Your task to perform on an android device: turn pop-ups on in chrome Image 0: 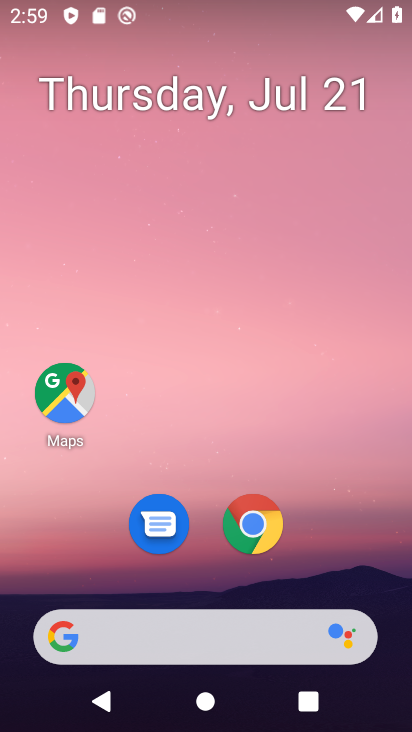
Step 0: press home button
Your task to perform on an android device: turn pop-ups on in chrome Image 1: 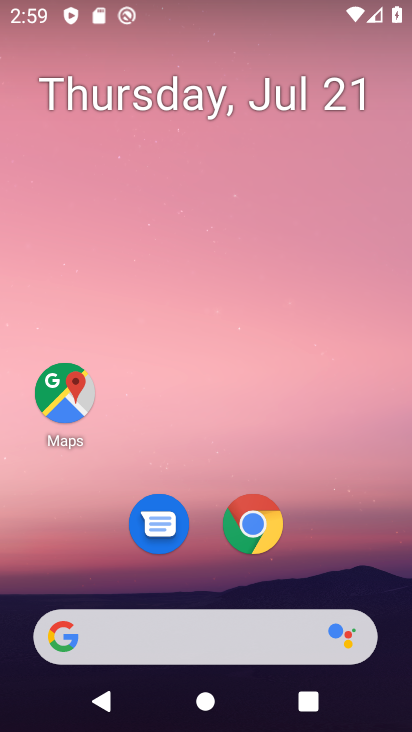
Step 1: click (251, 533)
Your task to perform on an android device: turn pop-ups on in chrome Image 2: 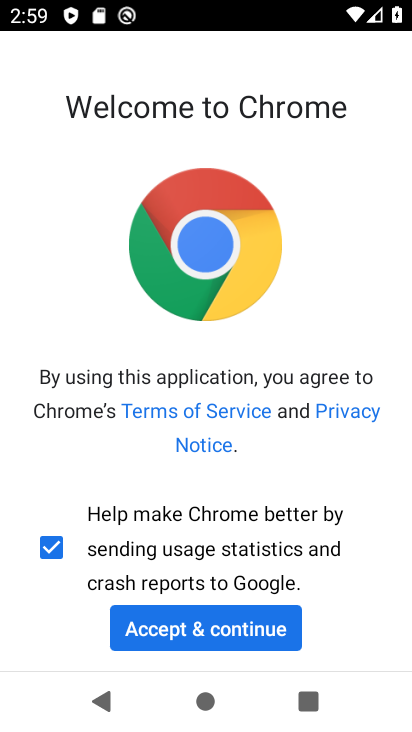
Step 2: click (217, 623)
Your task to perform on an android device: turn pop-ups on in chrome Image 3: 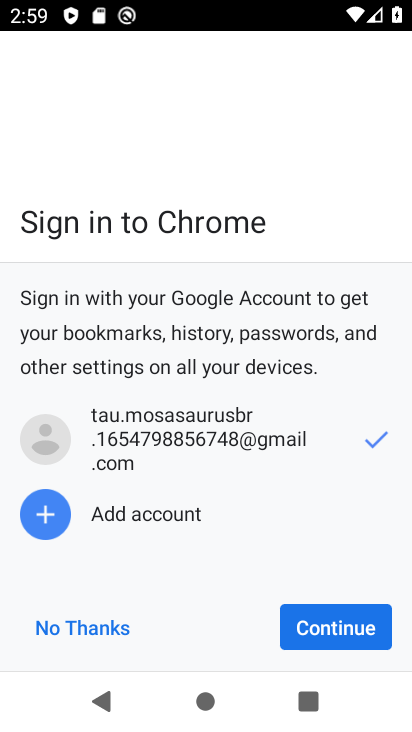
Step 3: click (319, 631)
Your task to perform on an android device: turn pop-ups on in chrome Image 4: 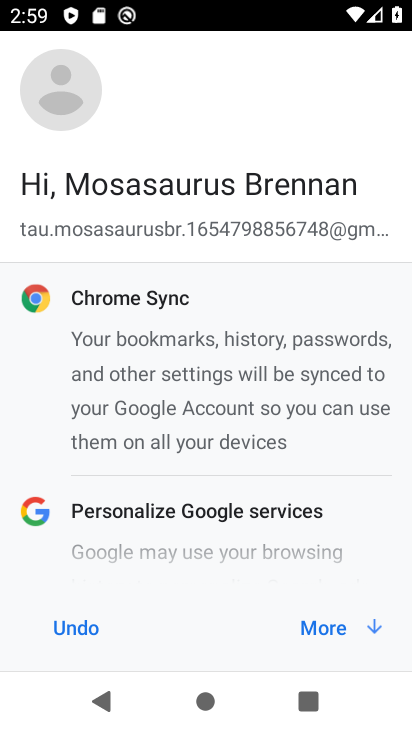
Step 4: click (320, 632)
Your task to perform on an android device: turn pop-ups on in chrome Image 5: 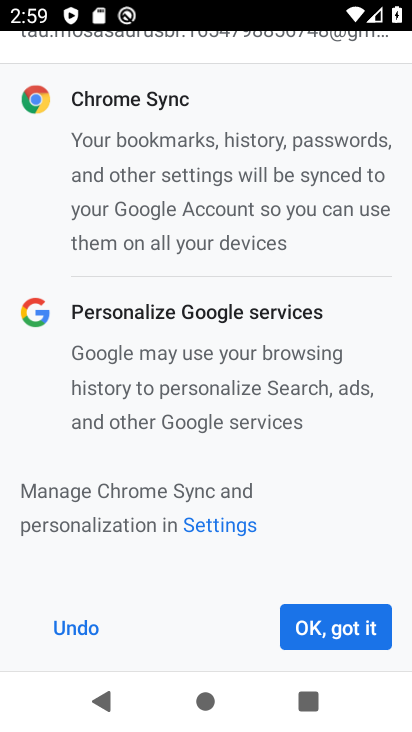
Step 5: click (320, 632)
Your task to perform on an android device: turn pop-ups on in chrome Image 6: 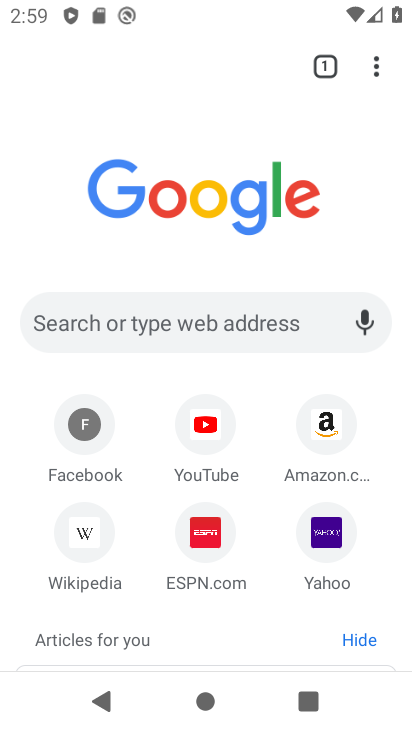
Step 6: drag from (373, 65) to (222, 552)
Your task to perform on an android device: turn pop-ups on in chrome Image 7: 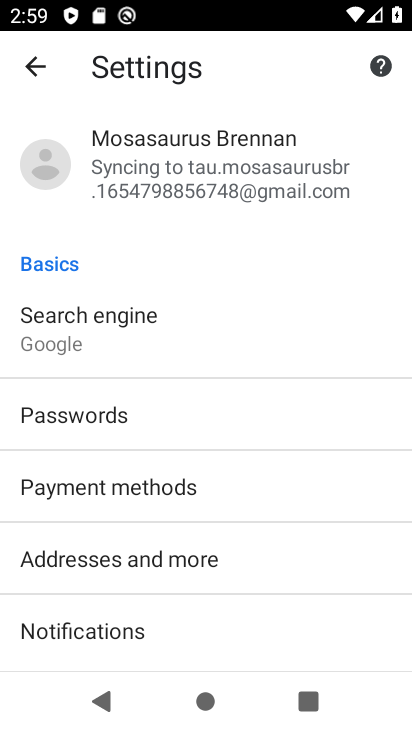
Step 7: drag from (210, 629) to (330, 106)
Your task to perform on an android device: turn pop-ups on in chrome Image 8: 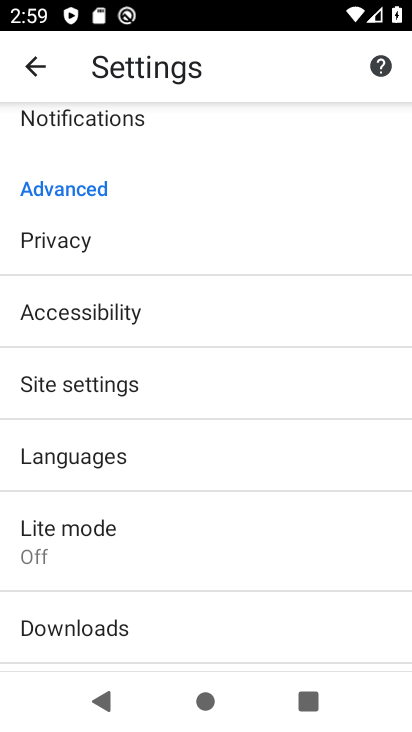
Step 8: click (115, 390)
Your task to perform on an android device: turn pop-ups on in chrome Image 9: 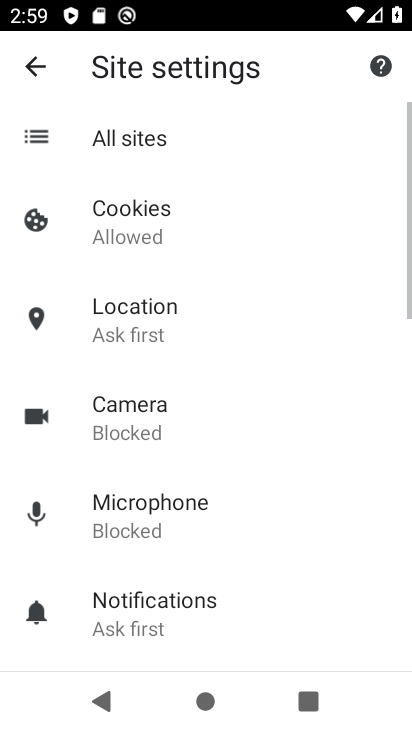
Step 9: drag from (246, 580) to (259, 120)
Your task to perform on an android device: turn pop-ups on in chrome Image 10: 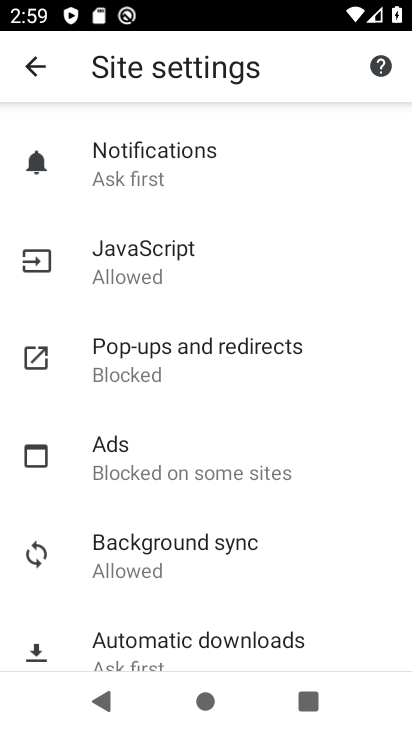
Step 10: click (170, 347)
Your task to perform on an android device: turn pop-ups on in chrome Image 11: 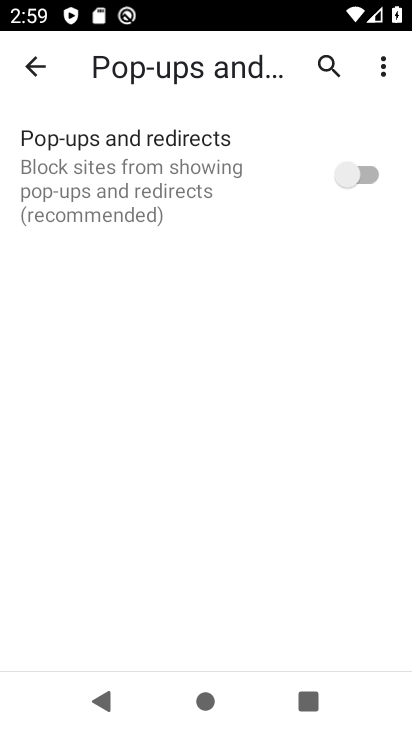
Step 11: click (366, 176)
Your task to perform on an android device: turn pop-ups on in chrome Image 12: 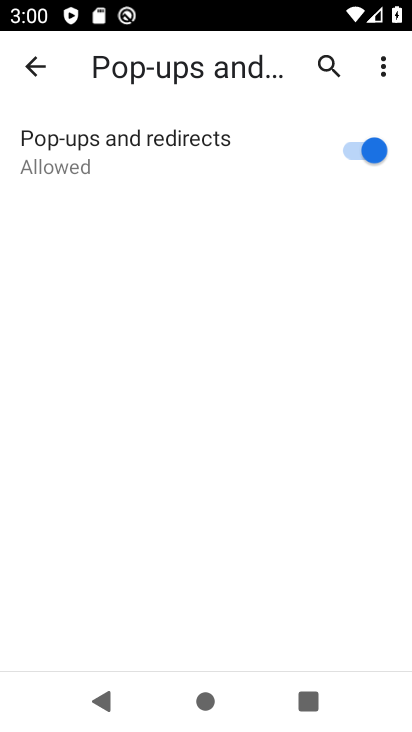
Step 12: task complete